Your task to perform on an android device: Go to Amazon Image 0: 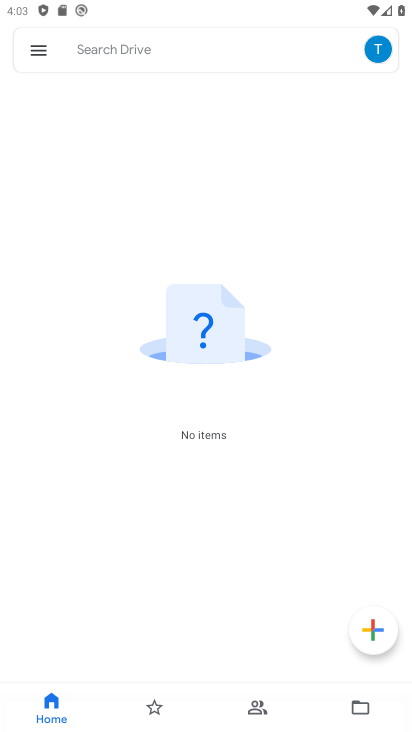
Step 0: press home button
Your task to perform on an android device: Go to Amazon Image 1: 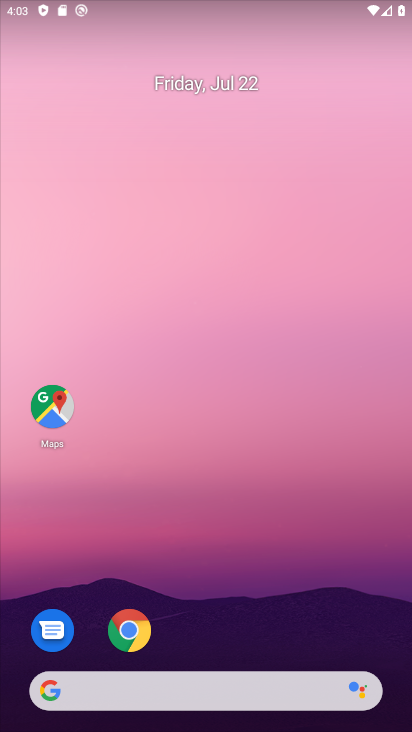
Step 1: click (139, 632)
Your task to perform on an android device: Go to Amazon Image 2: 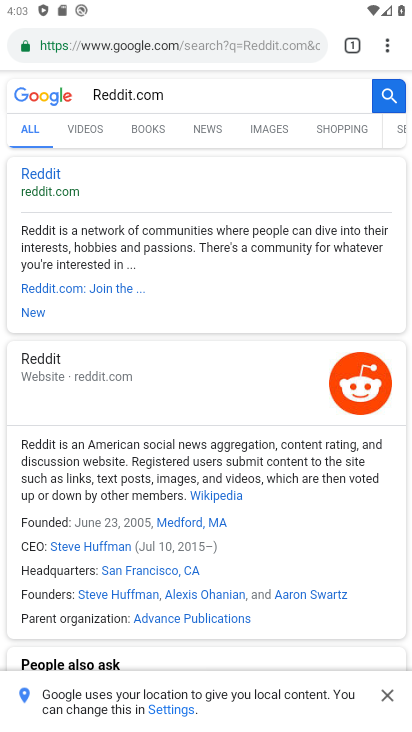
Step 2: click (234, 47)
Your task to perform on an android device: Go to Amazon Image 3: 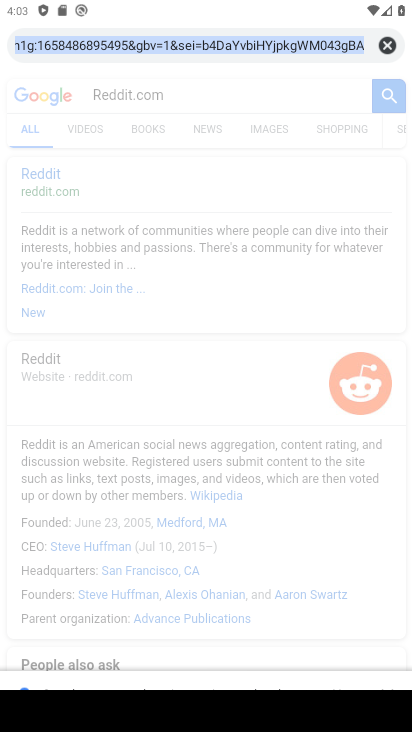
Step 3: type "Amazon"
Your task to perform on an android device: Go to Amazon Image 4: 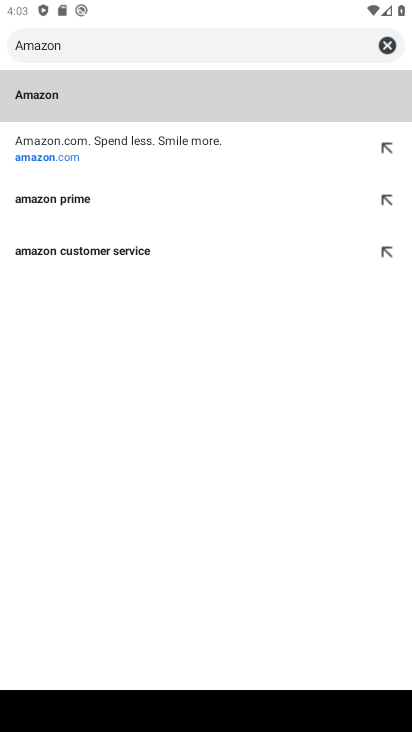
Step 4: click (104, 149)
Your task to perform on an android device: Go to Amazon Image 5: 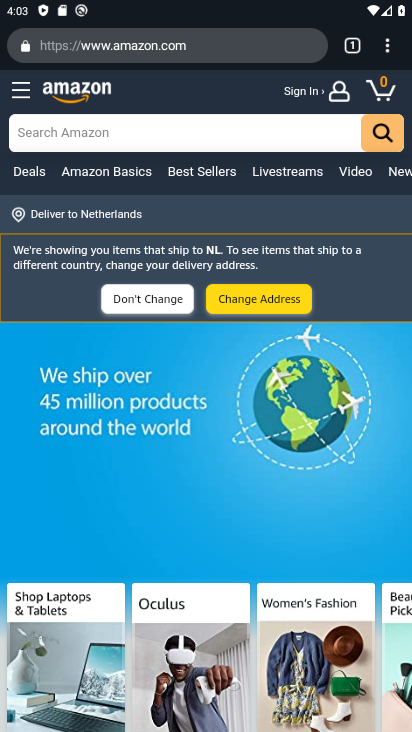
Step 5: task complete